Your task to perform on an android device: Go to CNN.com Image 0: 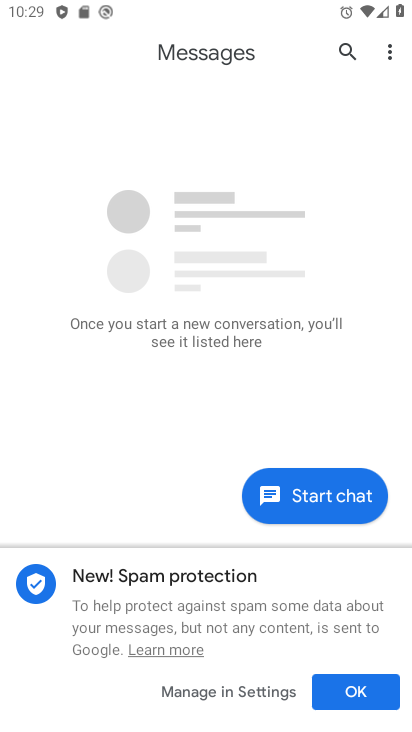
Step 0: press home button
Your task to perform on an android device: Go to CNN.com Image 1: 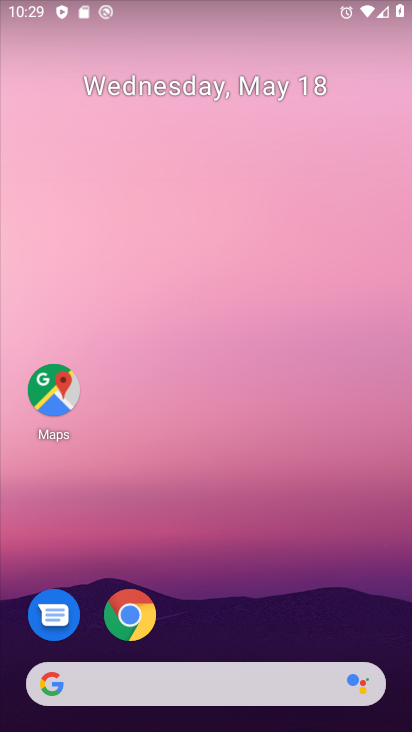
Step 1: drag from (207, 656) to (213, 233)
Your task to perform on an android device: Go to CNN.com Image 2: 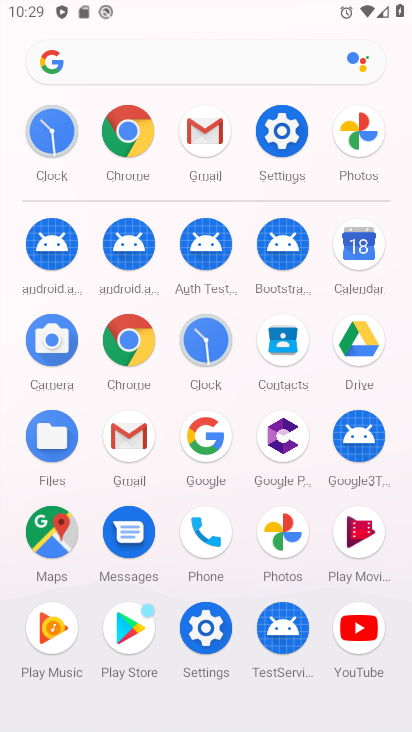
Step 2: click (208, 443)
Your task to perform on an android device: Go to CNN.com Image 3: 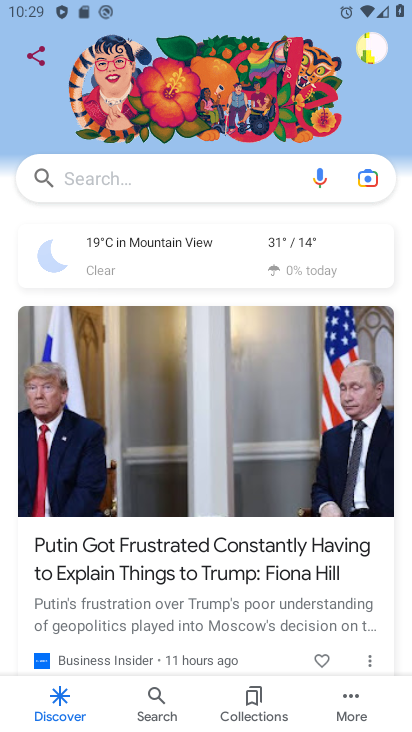
Step 3: click (102, 181)
Your task to perform on an android device: Go to CNN.com Image 4: 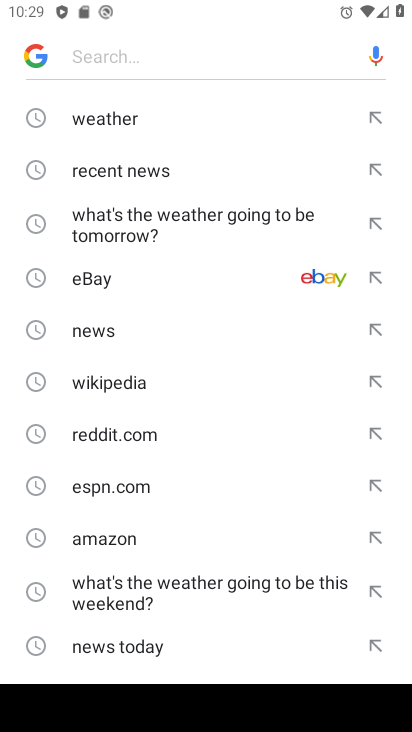
Step 4: drag from (87, 657) to (119, 269)
Your task to perform on an android device: Go to CNN.com Image 5: 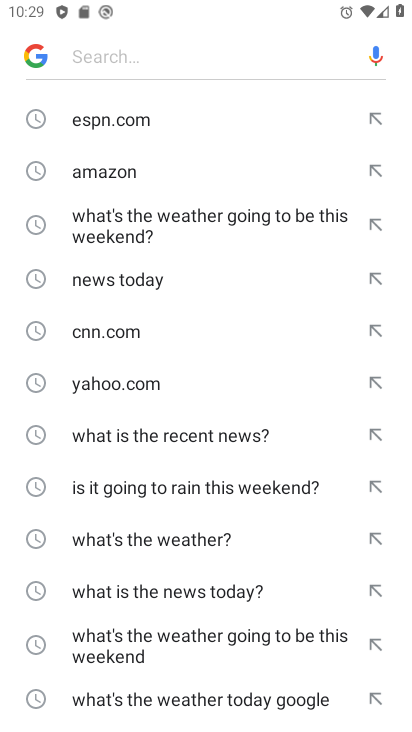
Step 5: drag from (174, 712) to (208, 312)
Your task to perform on an android device: Go to CNN.com Image 6: 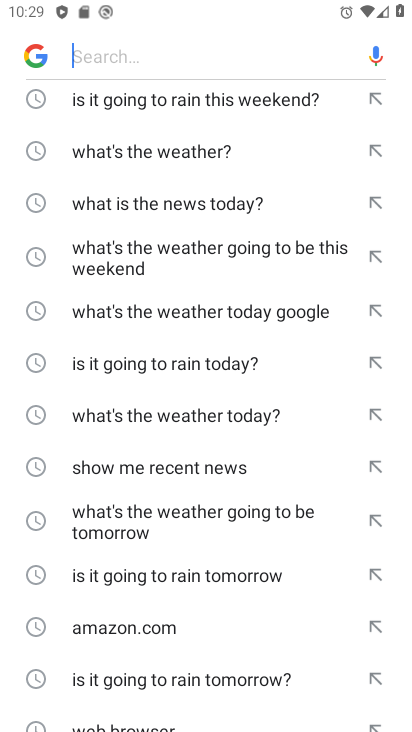
Step 6: drag from (147, 627) to (185, 360)
Your task to perform on an android device: Go to CNN.com Image 7: 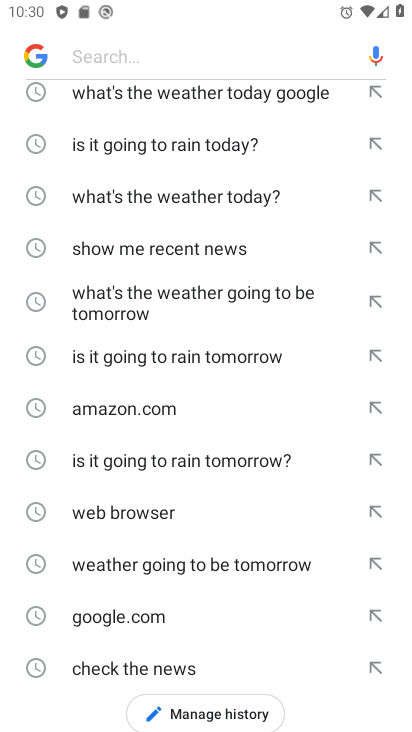
Step 7: drag from (181, 86) to (117, 526)
Your task to perform on an android device: Go to CNN.com Image 8: 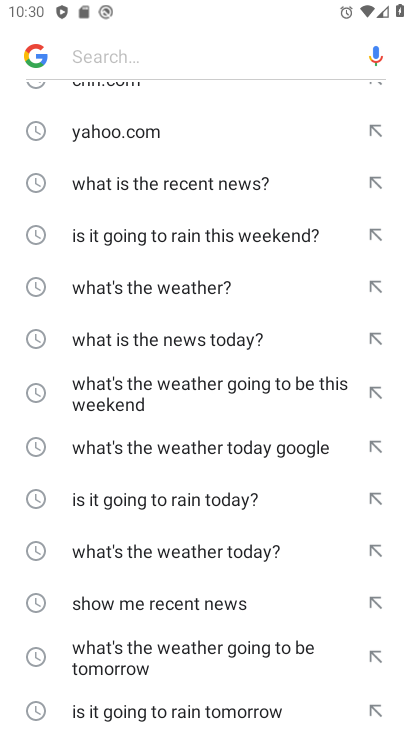
Step 8: drag from (161, 90) to (197, 468)
Your task to perform on an android device: Go to CNN.com Image 9: 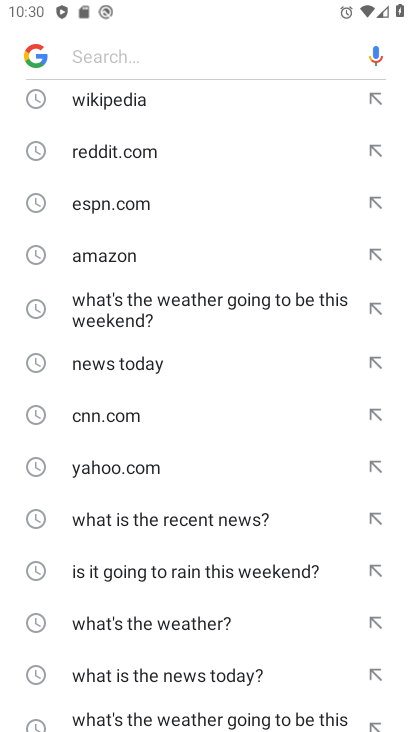
Step 9: drag from (157, 130) to (172, 514)
Your task to perform on an android device: Go to CNN.com Image 10: 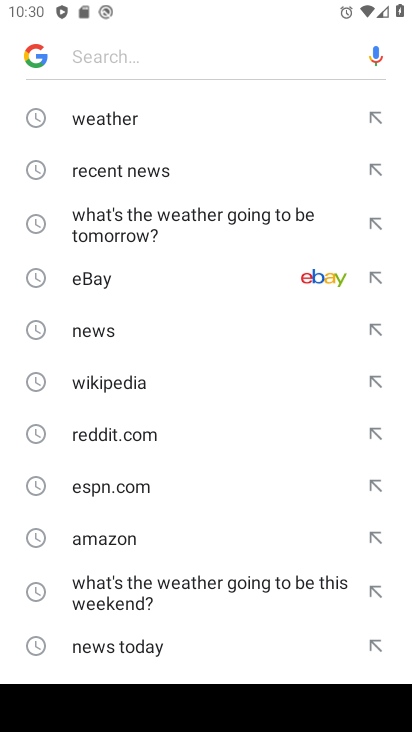
Step 10: drag from (119, 147) to (116, 512)
Your task to perform on an android device: Go to CNN.com Image 11: 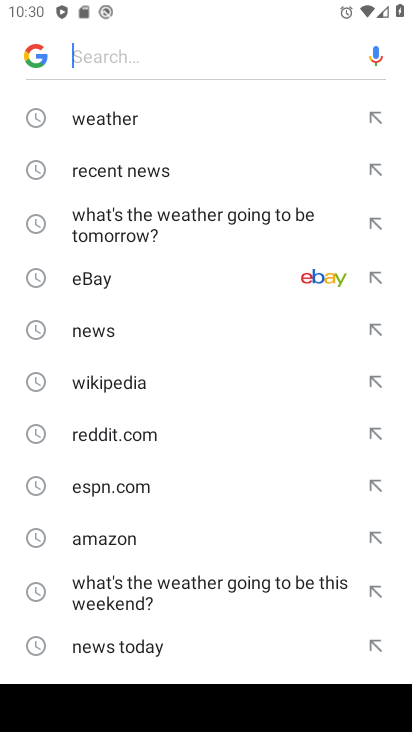
Step 11: drag from (151, 109) to (186, 475)
Your task to perform on an android device: Go to CNN.com Image 12: 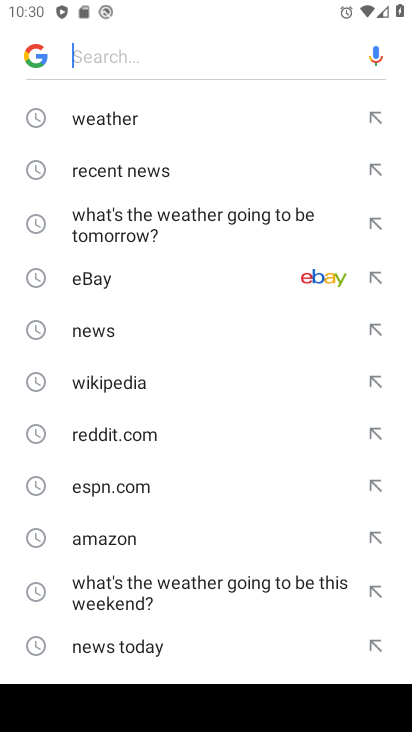
Step 12: drag from (171, 633) to (184, 329)
Your task to perform on an android device: Go to CNN.com Image 13: 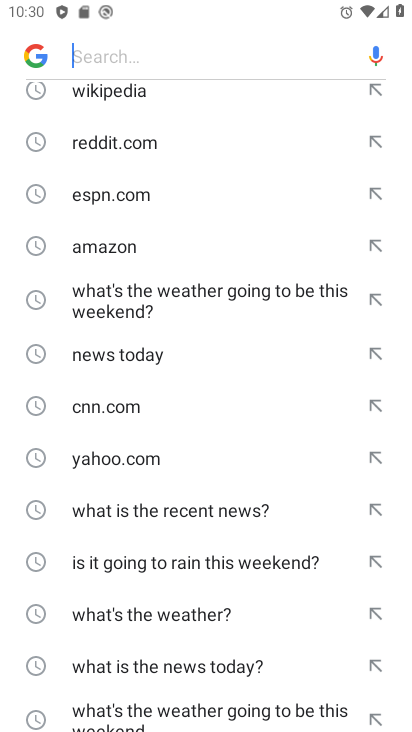
Step 13: click (129, 413)
Your task to perform on an android device: Go to CNN.com Image 14: 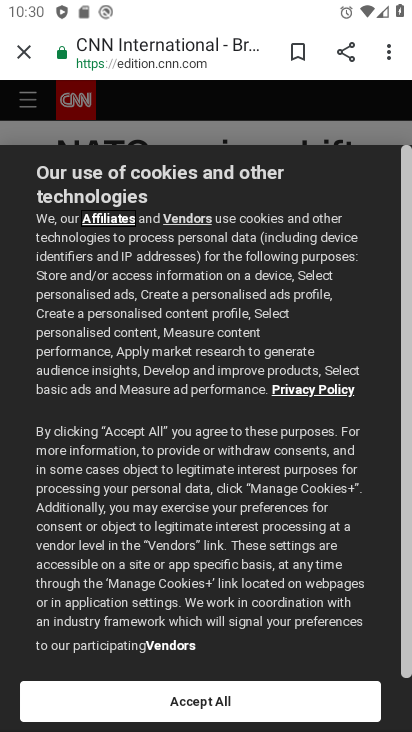
Step 14: task complete